Your task to perform on an android device: Show me popular videos on Youtube Image 0: 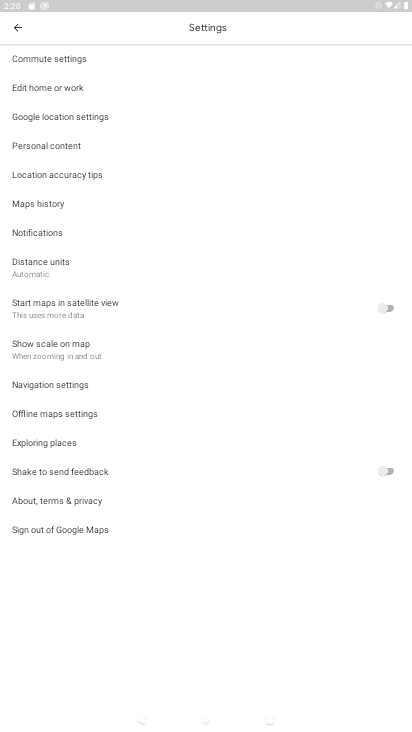
Step 0: press home button
Your task to perform on an android device: Show me popular videos on Youtube Image 1: 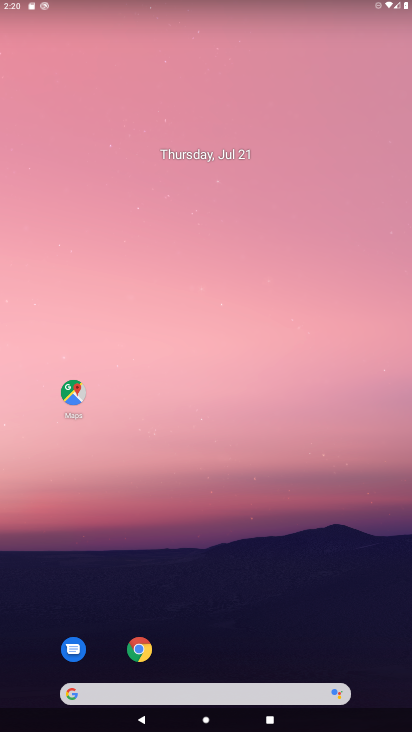
Step 1: drag from (251, 608) to (236, 45)
Your task to perform on an android device: Show me popular videos on Youtube Image 2: 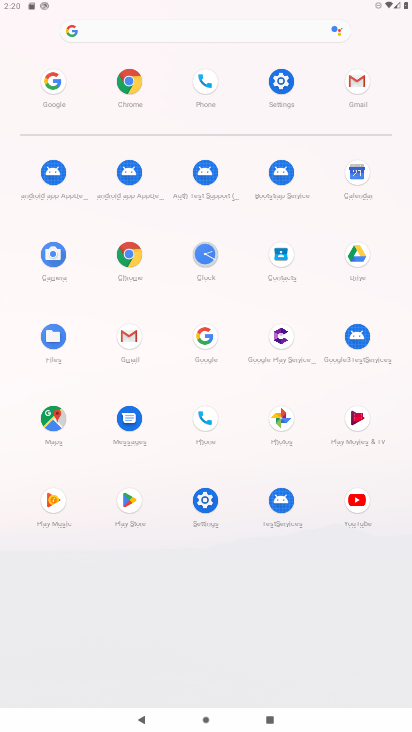
Step 2: click (359, 504)
Your task to perform on an android device: Show me popular videos on Youtube Image 3: 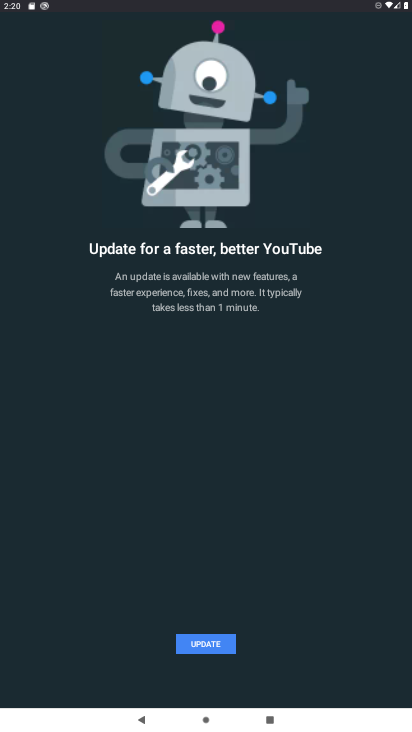
Step 3: click (202, 649)
Your task to perform on an android device: Show me popular videos on Youtube Image 4: 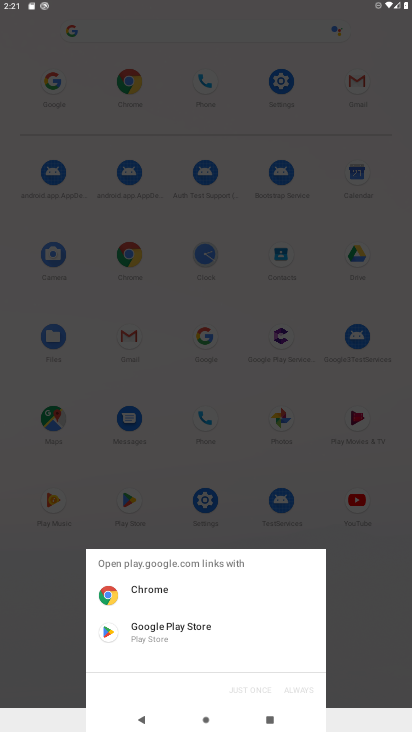
Step 4: click (173, 630)
Your task to perform on an android device: Show me popular videos on Youtube Image 5: 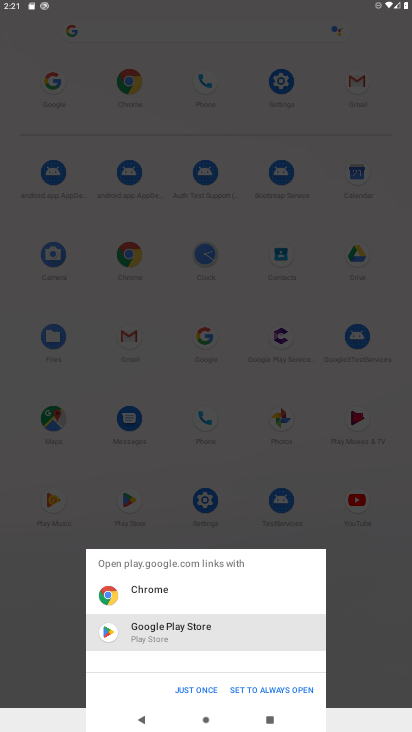
Step 5: click (199, 687)
Your task to perform on an android device: Show me popular videos on Youtube Image 6: 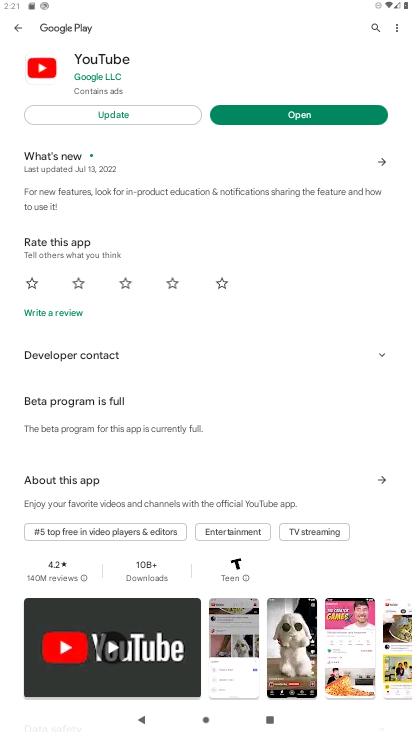
Step 6: click (114, 113)
Your task to perform on an android device: Show me popular videos on Youtube Image 7: 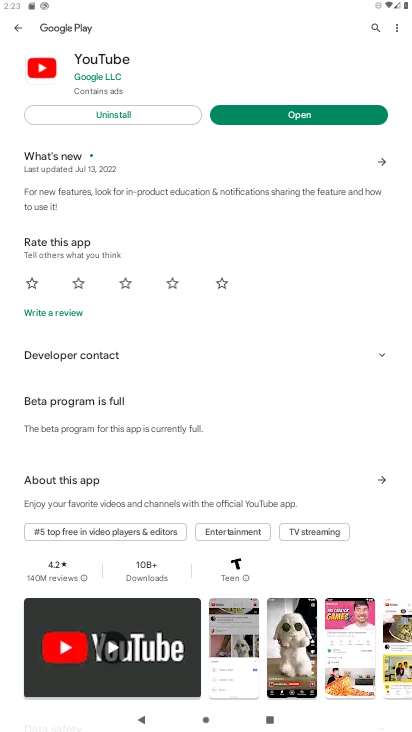
Step 7: click (276, 115)
Your task to perform on an android device: Show me popular videos on Youtube Image 8: 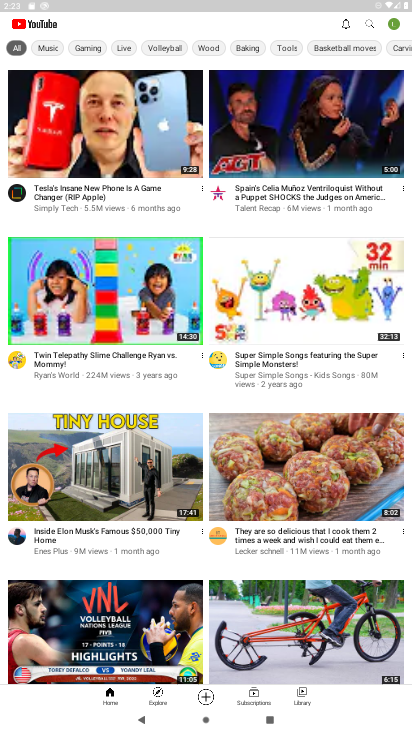
Step 8: click (368, 19)
Your task to perform on an android device: Show me popular videos on Youtube Image 9: 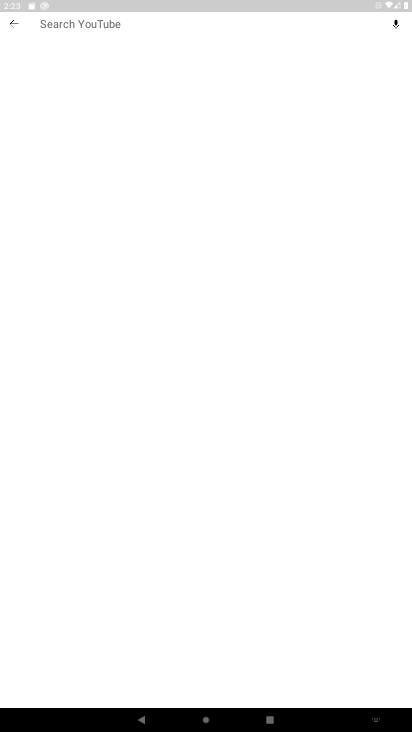
Step 9: type " popular videos "
Your task to perform on an android device: Show me popular videos on Youtube Image 10: 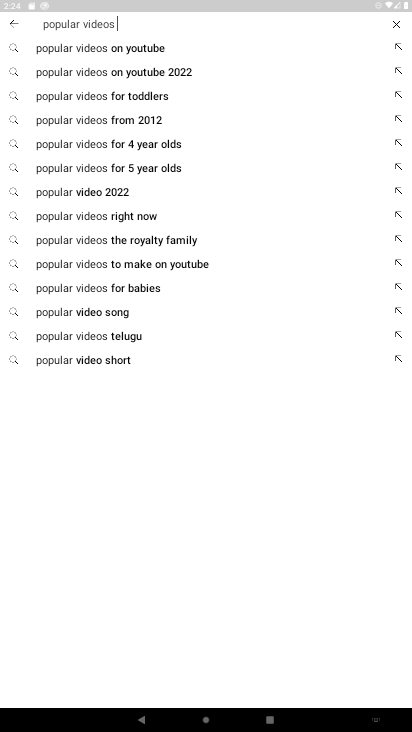
Step 10: click (73, 48)
Your task to perform on an android device: Show me popular videos on Youtube Image 11: 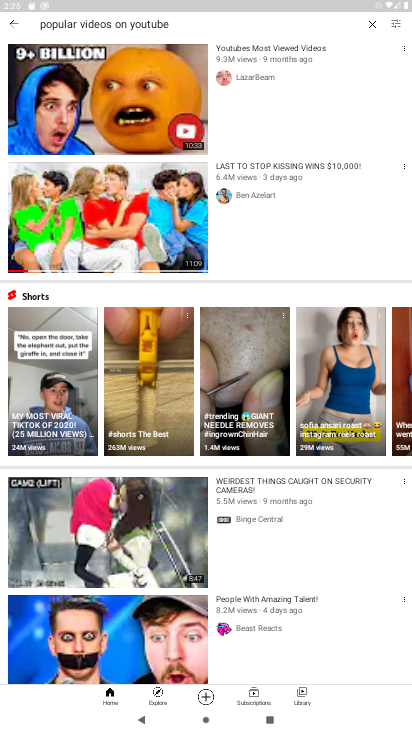
Step 11: task complete